Your task to perform on an android device: turn smart compose on in the gmail app Image 0: 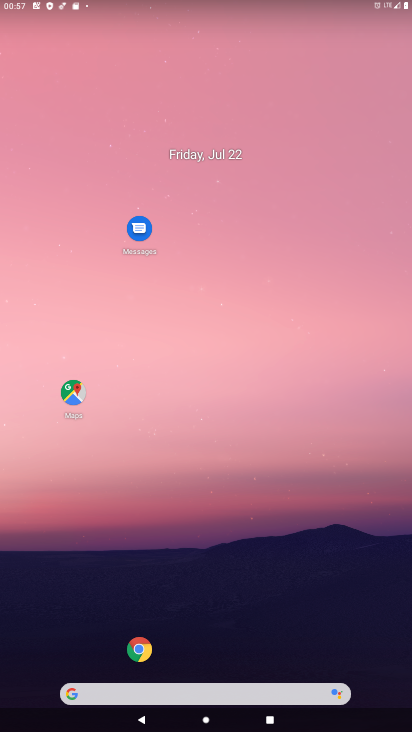
Step 0: drag from (42, 690) to (174, 334)
Your task to perform on an android device: turn smart compose on in the gmail app Image 1: 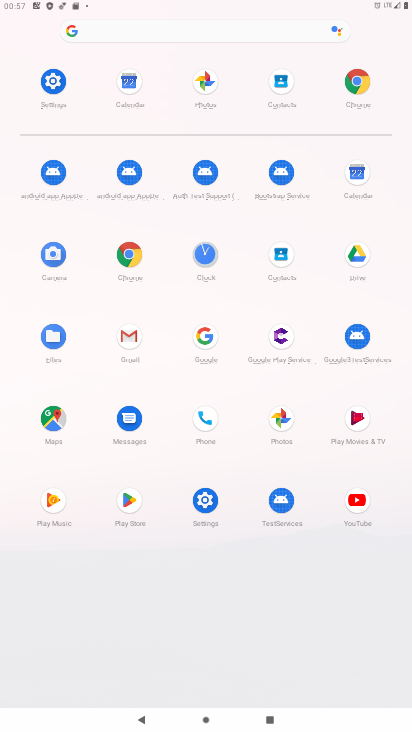
Step 1: click (127, 325)
Your task to perform on an android device: turn smart compose on in the gmail app Image 2: 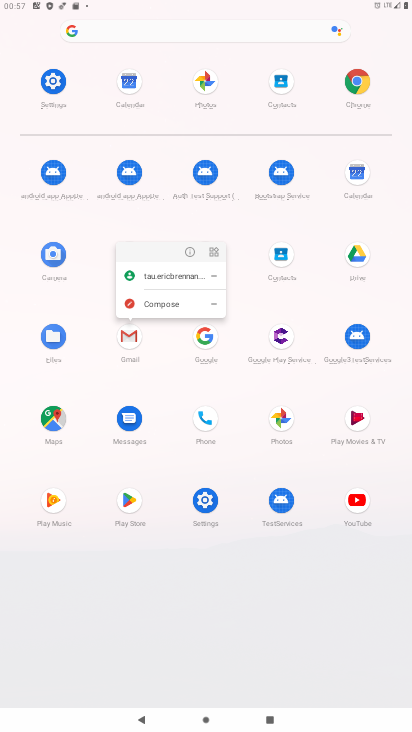
Step 2: click (126, 348)
Your task to perform on an android device: turn smart compose on in the gmail app Image 3: 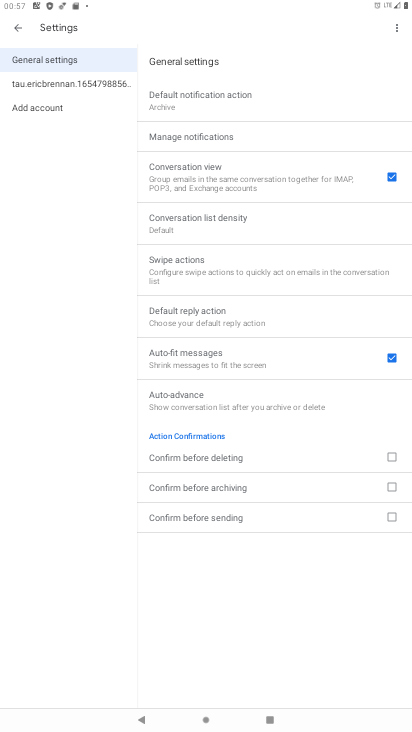
Step 3: click (59, 84)
Your task to perform on an android device: turn smart compose on in the gmail app Image 4: 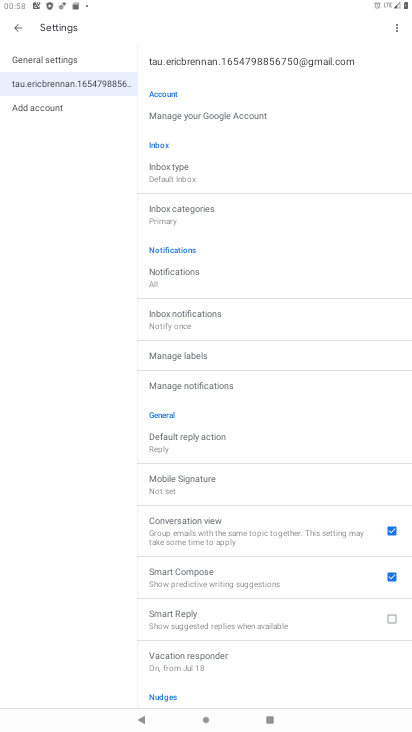
Step 4: task complete